Your task to perform on an android device: check out phone information Image 0: 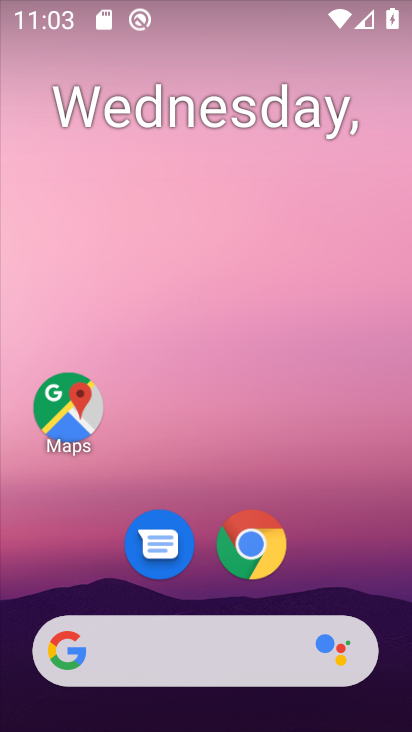
Step 0: drag from (190, 423) to (254, 43)
Your task to perform on an android device: check out phone information Image 1: 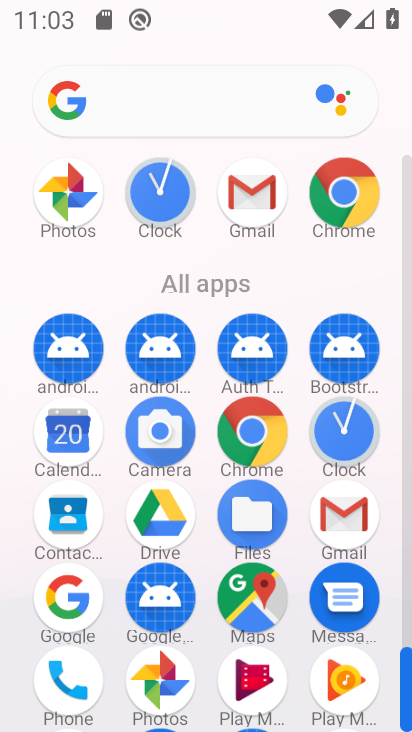
Step 1: drag from (214, 540) to (242, 176)
Your task to perform on an android device: check out phone information Image 2: 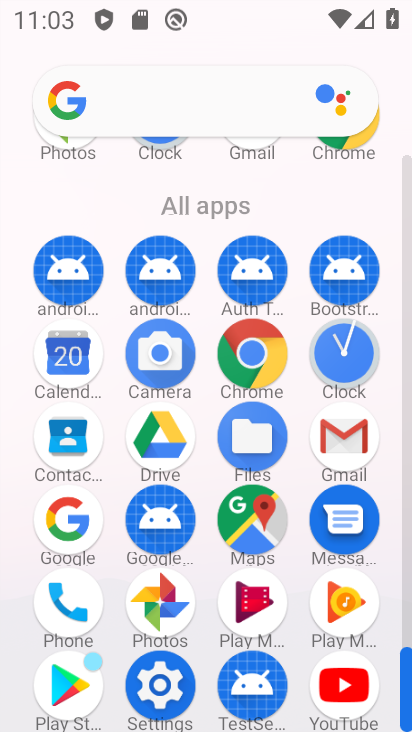
Step 2: click (157, 683)
Your task to perform on an android device: check out phone information Image 3: 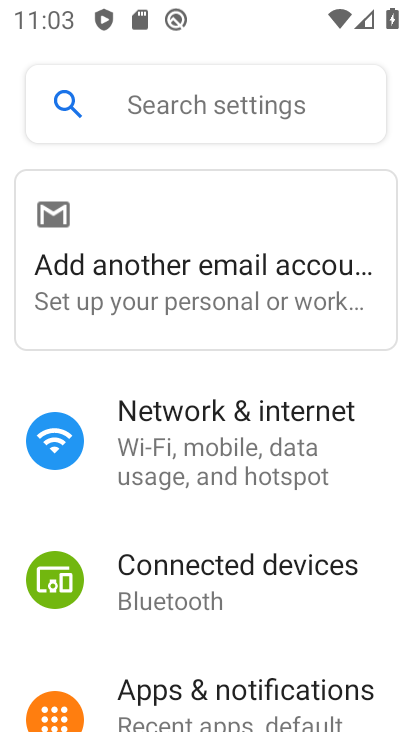
Step 3: drag from (186, 523) to (237, 62)
Your task to perform on an android device: check out phone information Image 4: 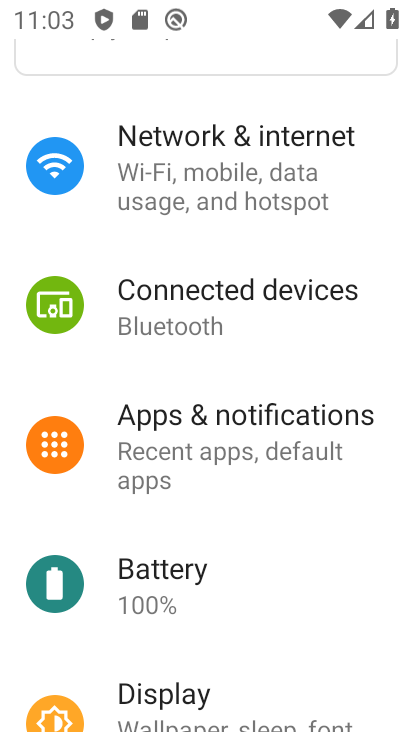
Step 4: drag from (238, 595) to (226, 158)
Your task to perform on an android device: check out phone information Image 5: 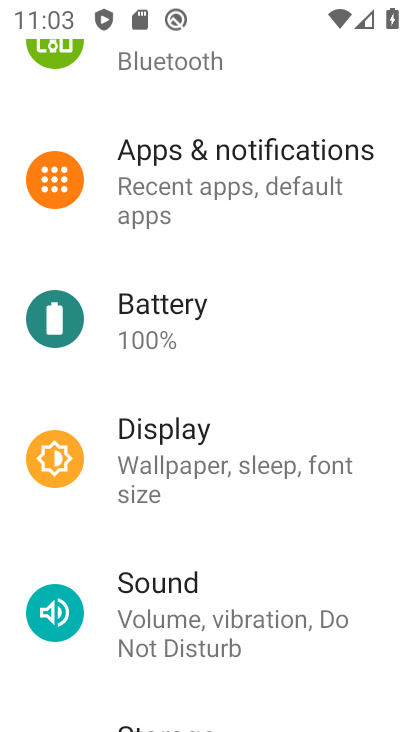
Step 5: drag from (217, 691) to (298, 150)
Your task to perform on an android device: check out phone information Image 6: 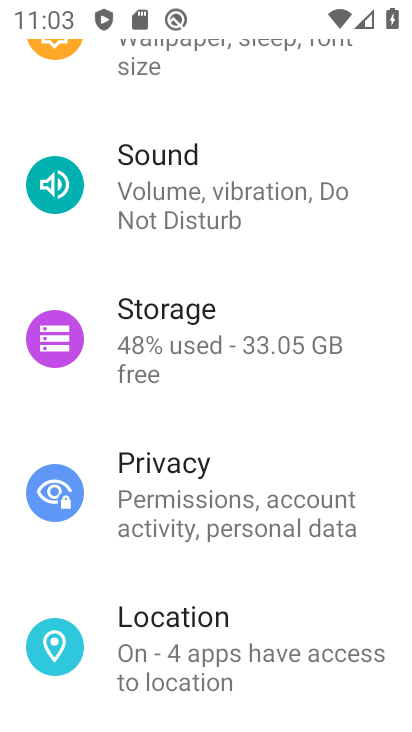
Step 6: drag from (257, 676) to (305, 162)
Your task to perform on an android device: check out phone information Image 7: 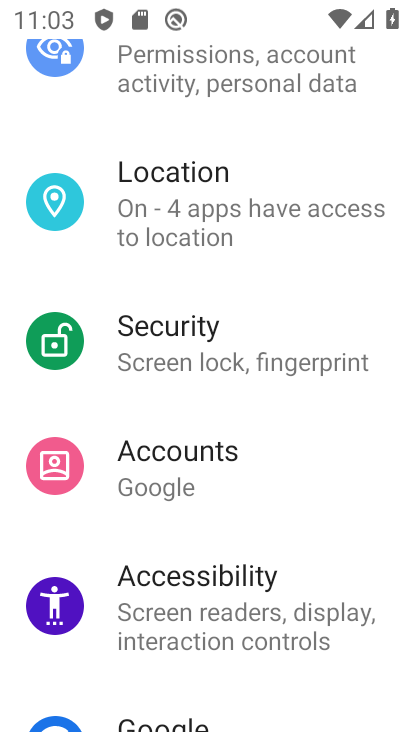
Step 7: drag from (231, 655) to (249, 209)
Your task to perform on an android device: check out phone information Image 8: 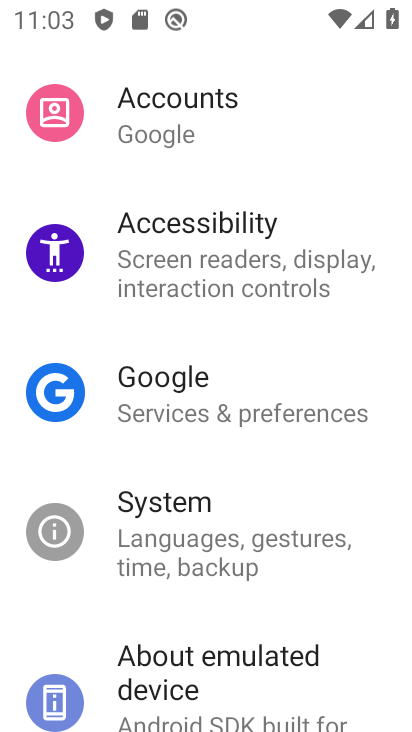
Step 8: click (230, 668)
Your task to perform on an android device: check out phone information Image 9: 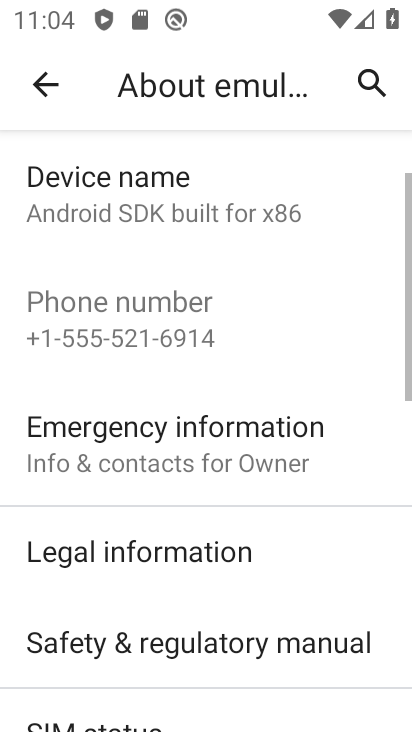
Step 9: task complete